Your task to perform on an android device: Search for pizza restaurants on Maps Image 0: 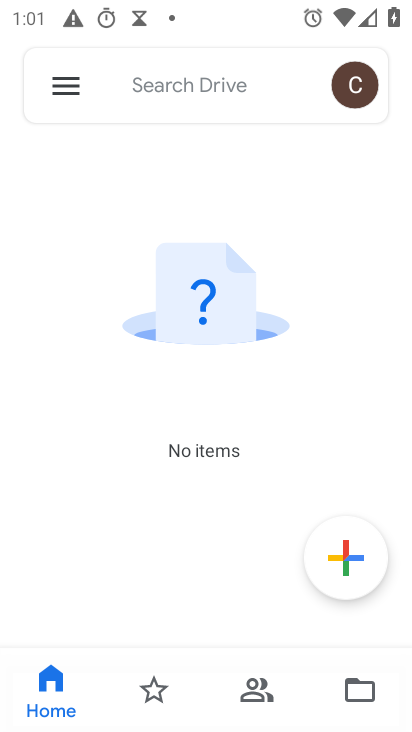
Step 0: press home button
Your task to perform on an android device: Search for pizza restaurants on Maps Image 1: 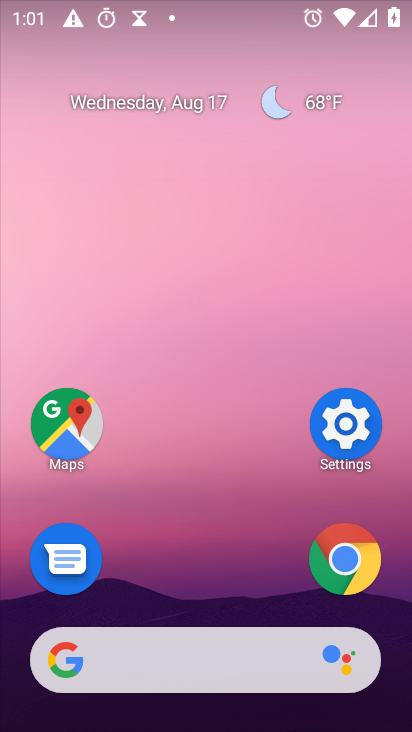
Step 1: click (76, 431)
Your task to perform on an android device: Search for pizza restaurants on Maps Image 2: 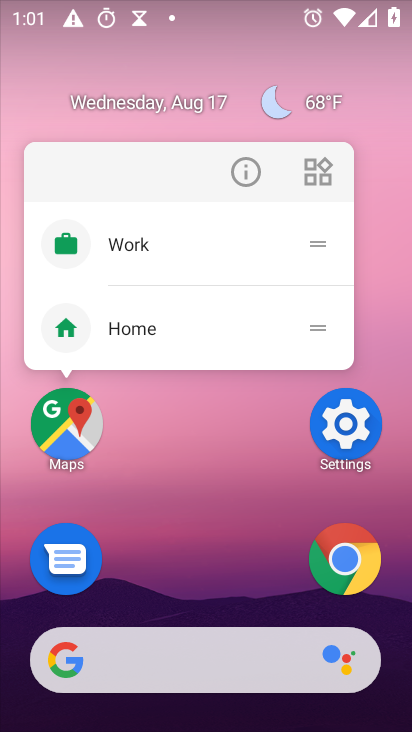
Step 2: click (70, 425)
Your task to perform on an android device: Search for pizza restaurants on Maps Image 3: 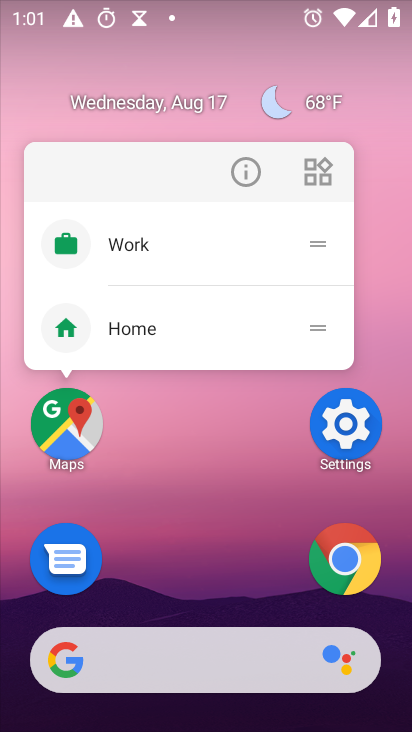
Step 3: click (64, 430)
Your task to perform on an android device: Search for pizza restaurants on Maps Image 4: 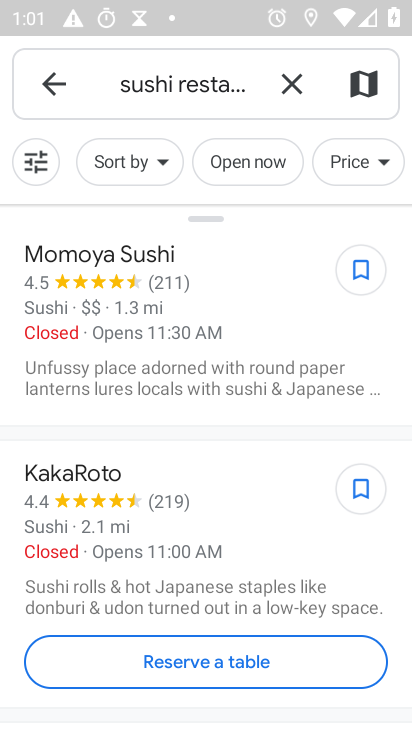
Step 4: press back button
Your task to perform on an android device: Search for pizza restaurants on Maps Image 5: 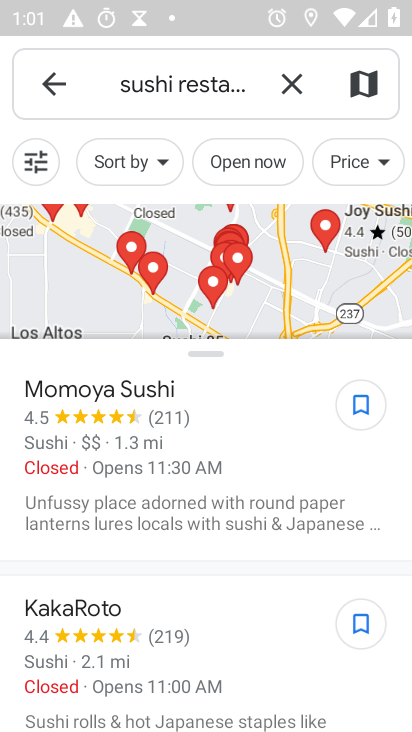
Step 5: press back button
Your task to perform on an android device: Search for pizza restaurants on Maps Image 6: 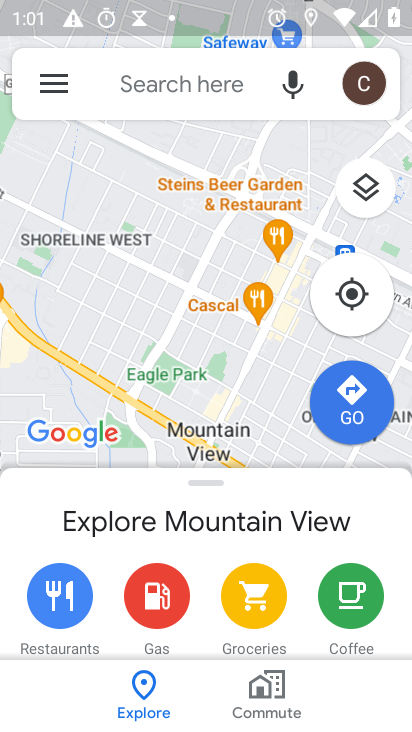
Step 6: click (154, 89)
Your task to perform on an android device: Search for pizza restaurants on Maps Image 7: 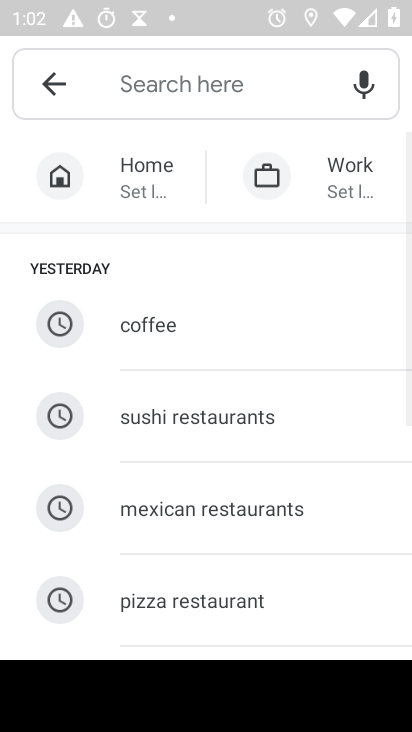
Step 7: click (171, 597)
Your task to perform on an android device: Search for pizza restaurants on Maps Image 8: 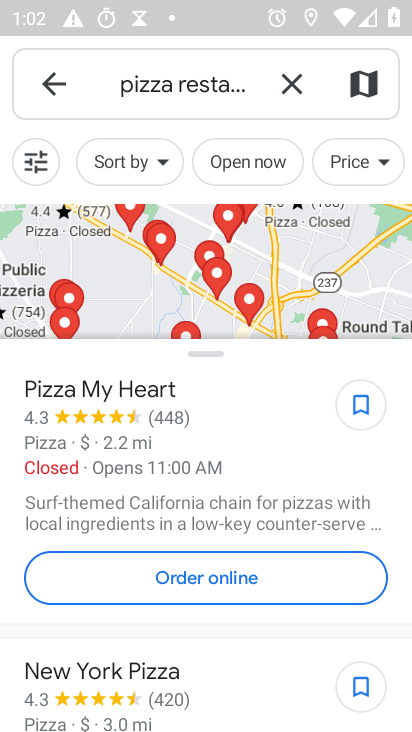
Step 8: task complete